Your task to perform on an android device: Clear all items from cart on bestbuy. Add apple airpods pro to the cart on bestbuy, then select checkout. Image 0: 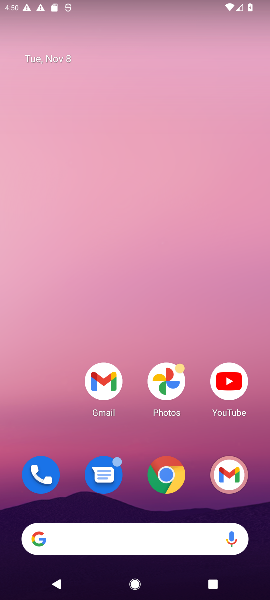
Step 0: drag from (27, 445) to (62, 126)
Your task to perform on an android device: Clear all items from cart on bestbuy. Add apple airpods pro to the cart on bestbuy, then select checkout. Image 1: 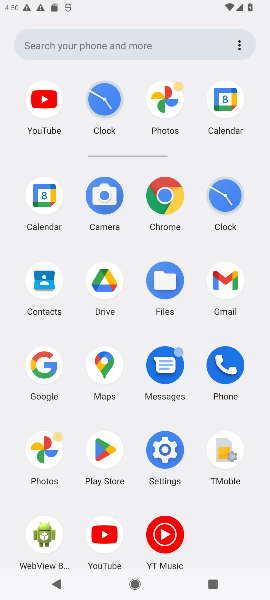
Step 1: click (40, 354)
Your task to perform on an android device: Clear all items from cart on bestbuy. Add apple airpods pro to the cart on bestbuy, then select checkout. Image 2: 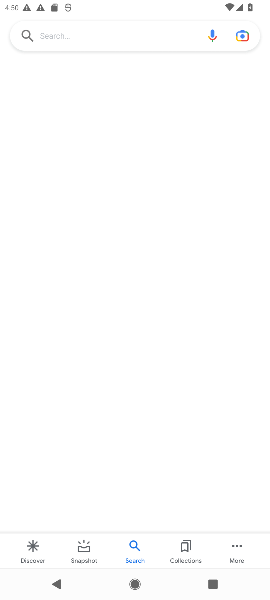
Step 2: click (44, 32)
Your task to perform on an android device: Clear all items from cart on bestbuy. Add apple airpods pro to the cart on bestbuy, then select checkout. Image 3: 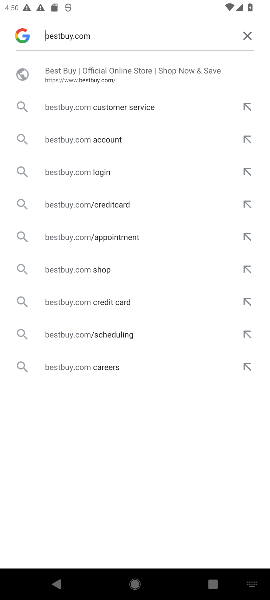
Step 3: type "bestbuy "
Your task to perform on an android device: Clear all items from cart on bestbuy. Add apple airpods pro to the cart on bestbuy, then select checkout. Image 4: 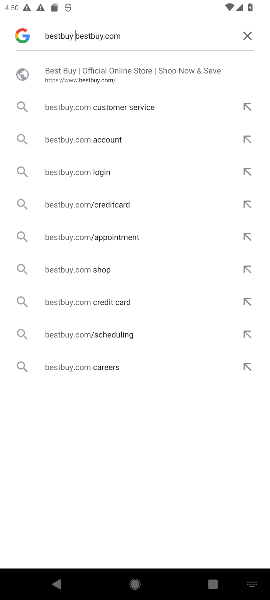
Step 4: click (93, 80)
Your task to perform on an android device: Clear all items from cart on bestbuy. Add apple airpods pro to the cart on bestbuy, then select checkout. Image 5: 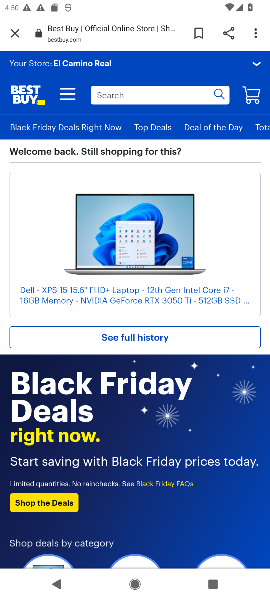
Step 5: click (142, 90)
Your task to perform on an android device: Clear all items from cart on bestbuy. Add apple airpods pro to the cart on bestbuy, then select checkout. Image 6: 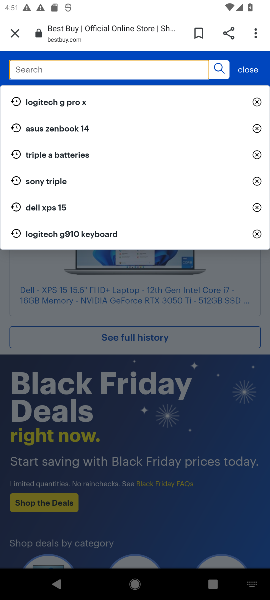
Step 6: type "airpods "
Your task to perform on an android device: Clear all items from cart on bestbuy. Add apple airpods pro to the cart on bestbuy, then select checkout. Image 7: 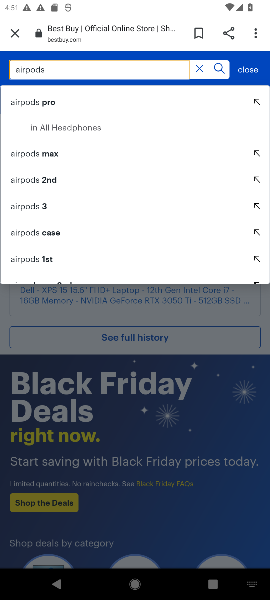
Step 7: click (52, 104)
Your task to perform on an android device: Clear all items from cart on bestbuy. Add apple airpods pro to the cart on bestbuy, then select checkout. Image 8: 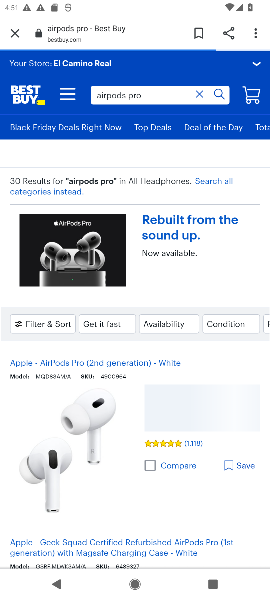
Step 8: drag from (136, 505) to (149, 224)
Your task to perform on an android device: Clear all items from cart on bestbuy. Add apple airpods pro to the cart on bestbuy, then select checkout. Image 9: 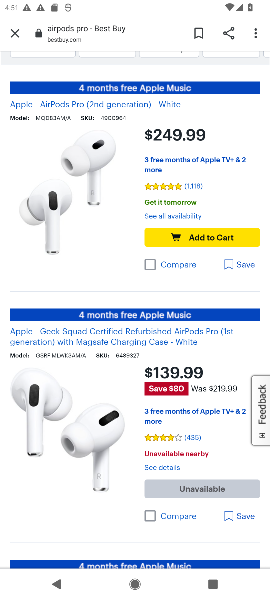
Step 9: click (189, 237)
Your task to perform on an android device: Clear all items from cart on bestbuy. Add apple airpods pro to the cart on bestbuy, then select checkout. Image 10: 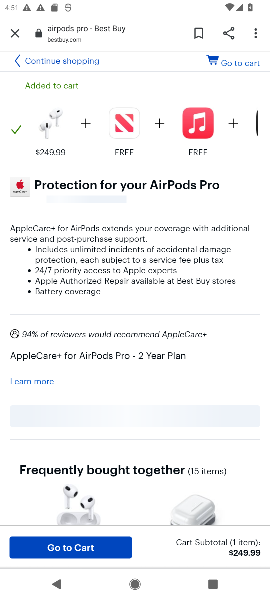
Step 10: task complete